Your task to perform on an android device: turn off notifications settings in the gmail app Image 0: 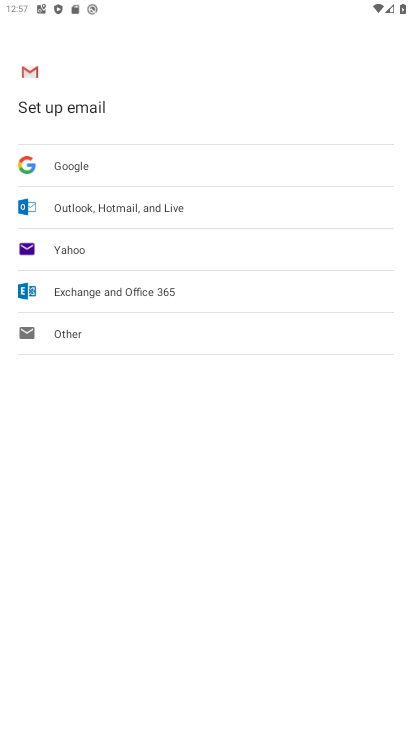
Step 0: press home button
Your task to perform on an android device: turn off notifications settings in the gmail app Image 1: 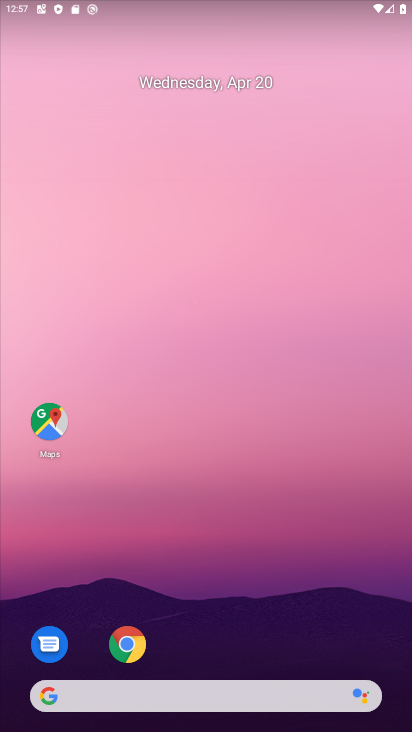
Step 1: drag from (172, 309) to (210, 0)
Your task to perform on an android device: turn off notifications settings in the gmail app Image 2: 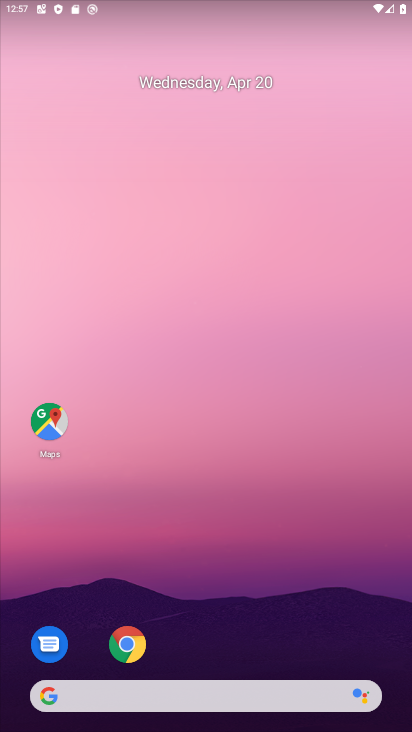
Step 2: drag from (209, 363) to (234, 13)
Your task to perform on an android device: turn off notifications settings in the gmail app Image 3: 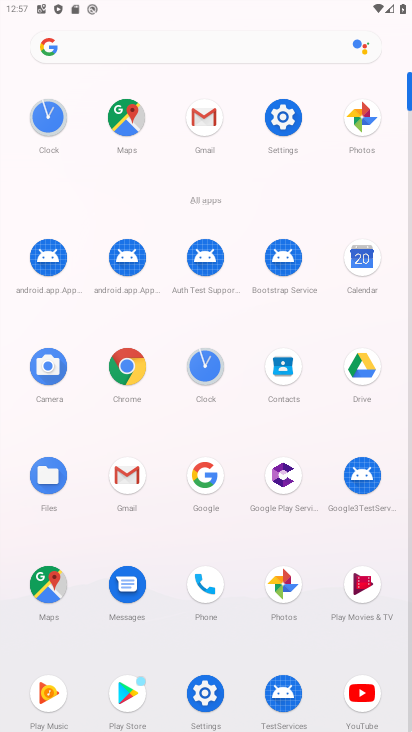
Step 3: click (213, 125)
Your task to perform on an android device: turn off notifications settings in the gmail app Image 4: 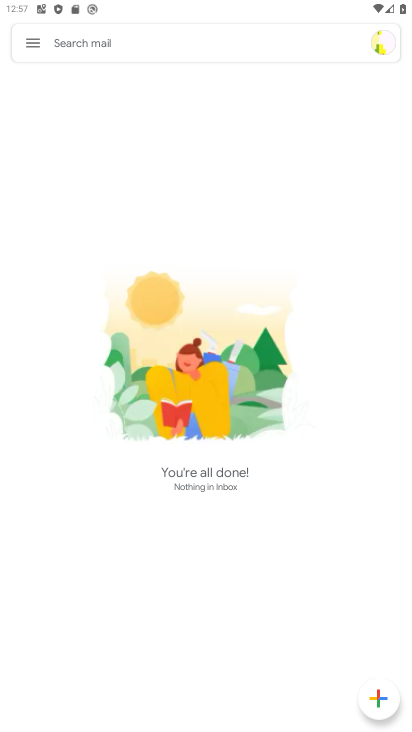
Step 4: click (30, 42)
Your task to perform on an android device: turn off notifications settings in the gmail app Image 5: 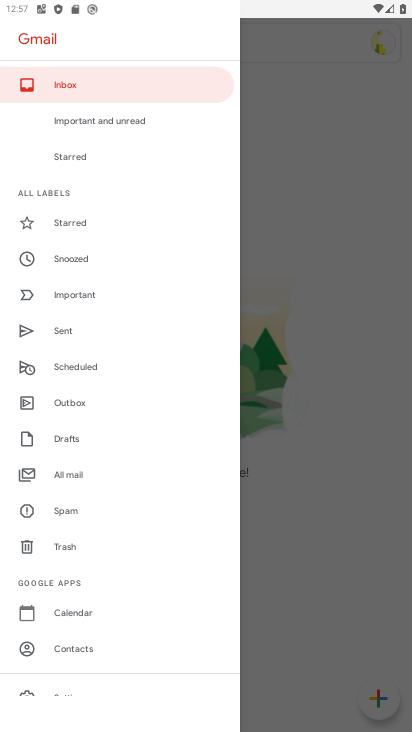
Step 5: drag from (83, 589) to (106, 231)
Your task to perform on an android device: turn off notifications settings in the gmail app Image 6: 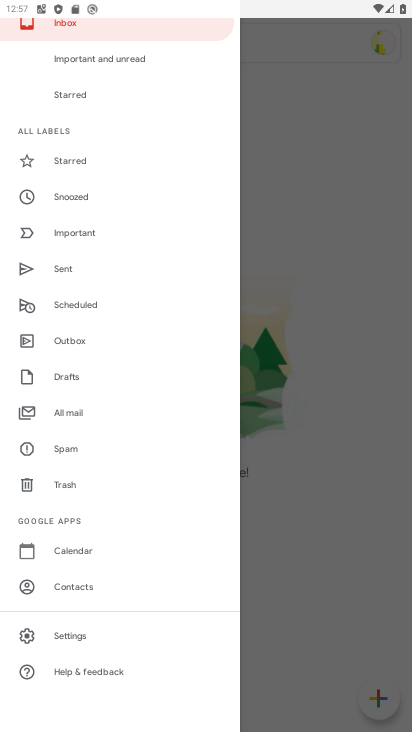
Step 6: click (75, 637)
Your task to perform on an android device: turn off notifications settings in the gmail app Image 7: 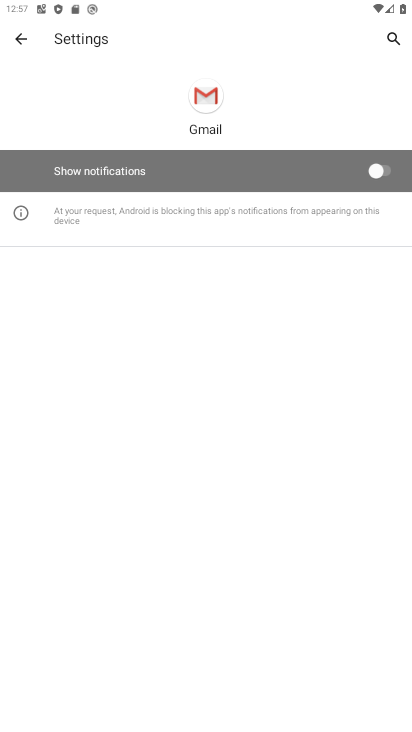
Step 7: click (374, 173)
Your task to perform on an android device: turn off notifications settings in the gmail app Image 8: 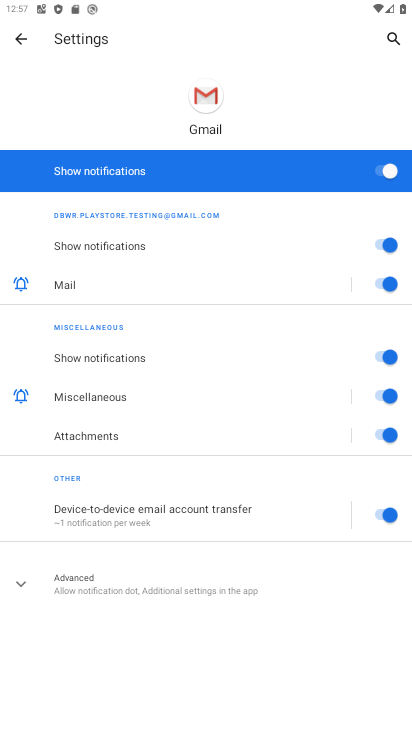
Step 8: task complete